Your task to perform on an android device: show emergency info Image 0: 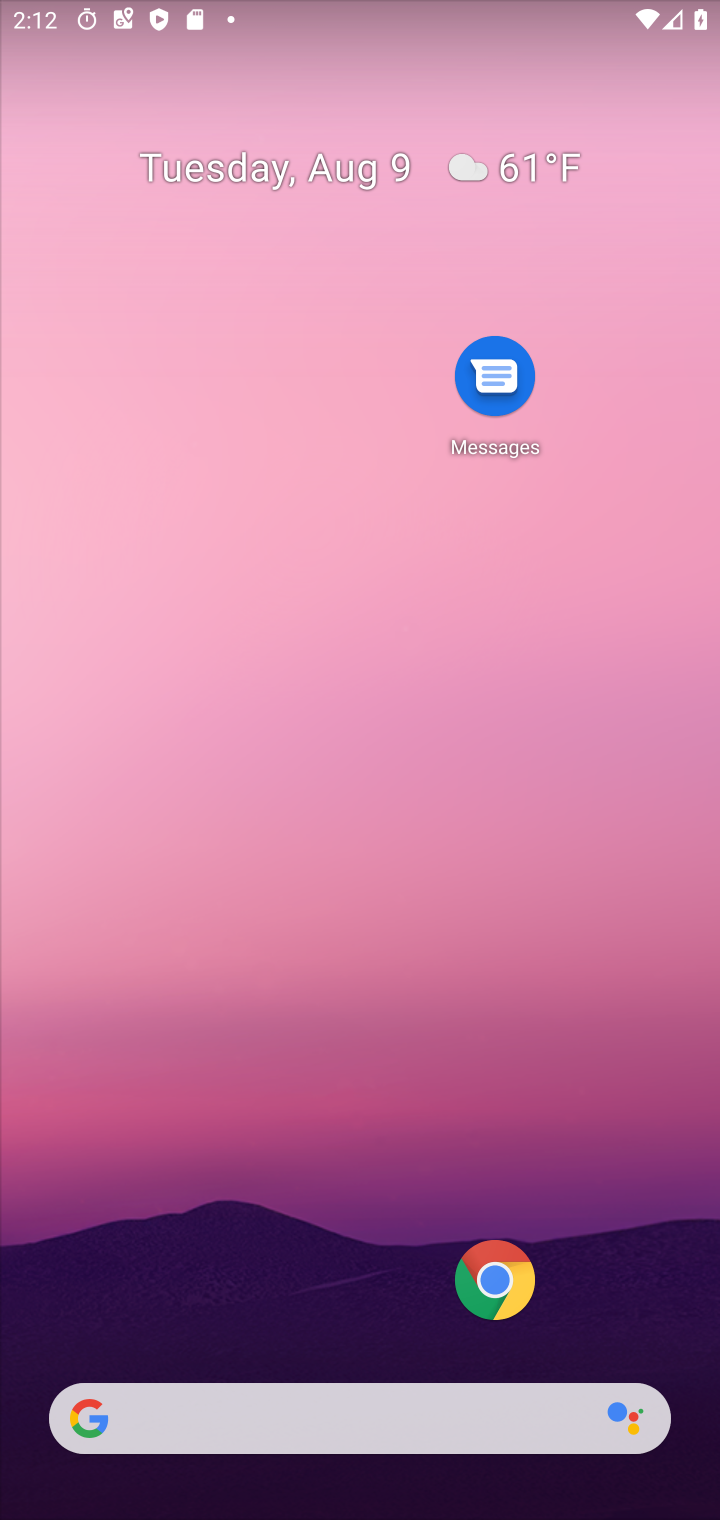
Step 0: press home button
Your task to perform on an android device: show emergency info Image 1: 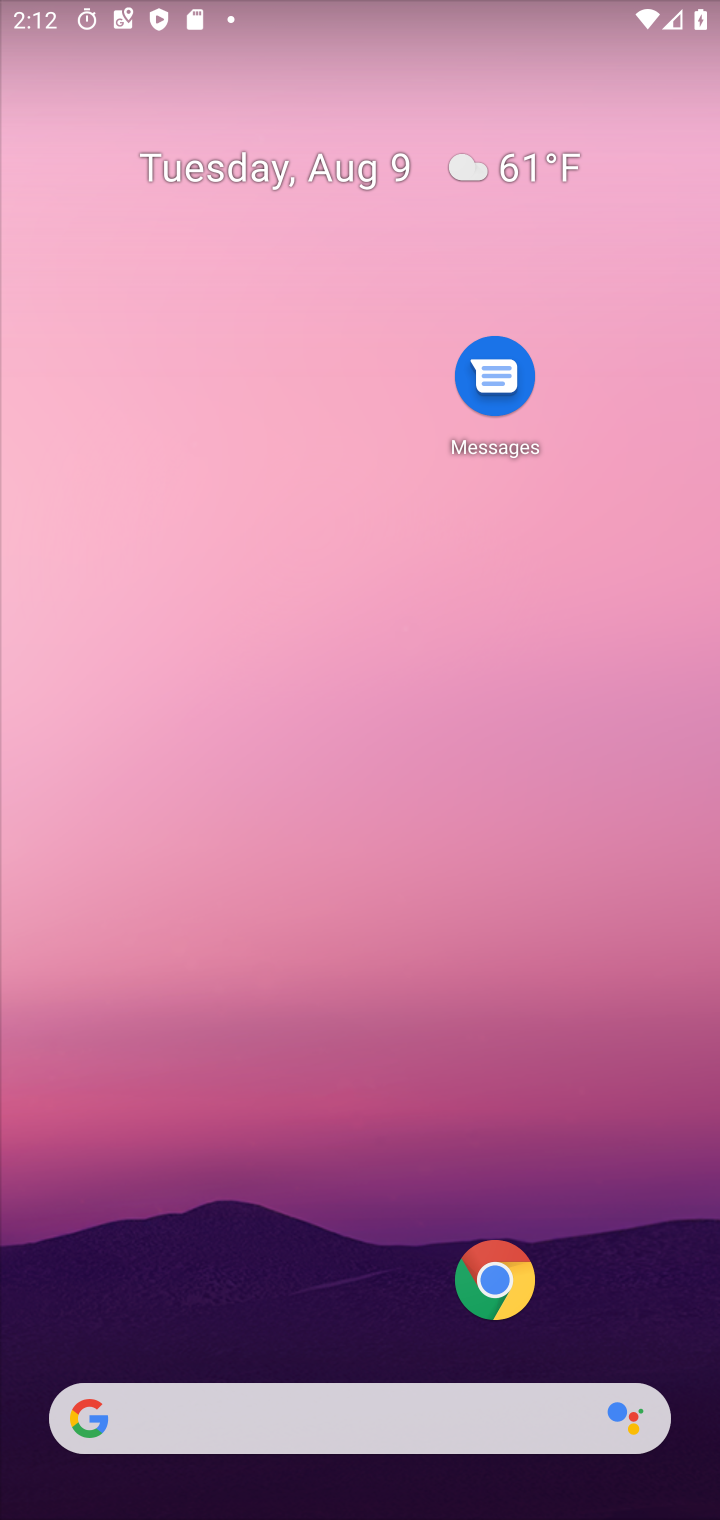
Step 1: drag from (365, 1333) to (435, 223)
Your task to perform on an android device: show emergency info Image 2: 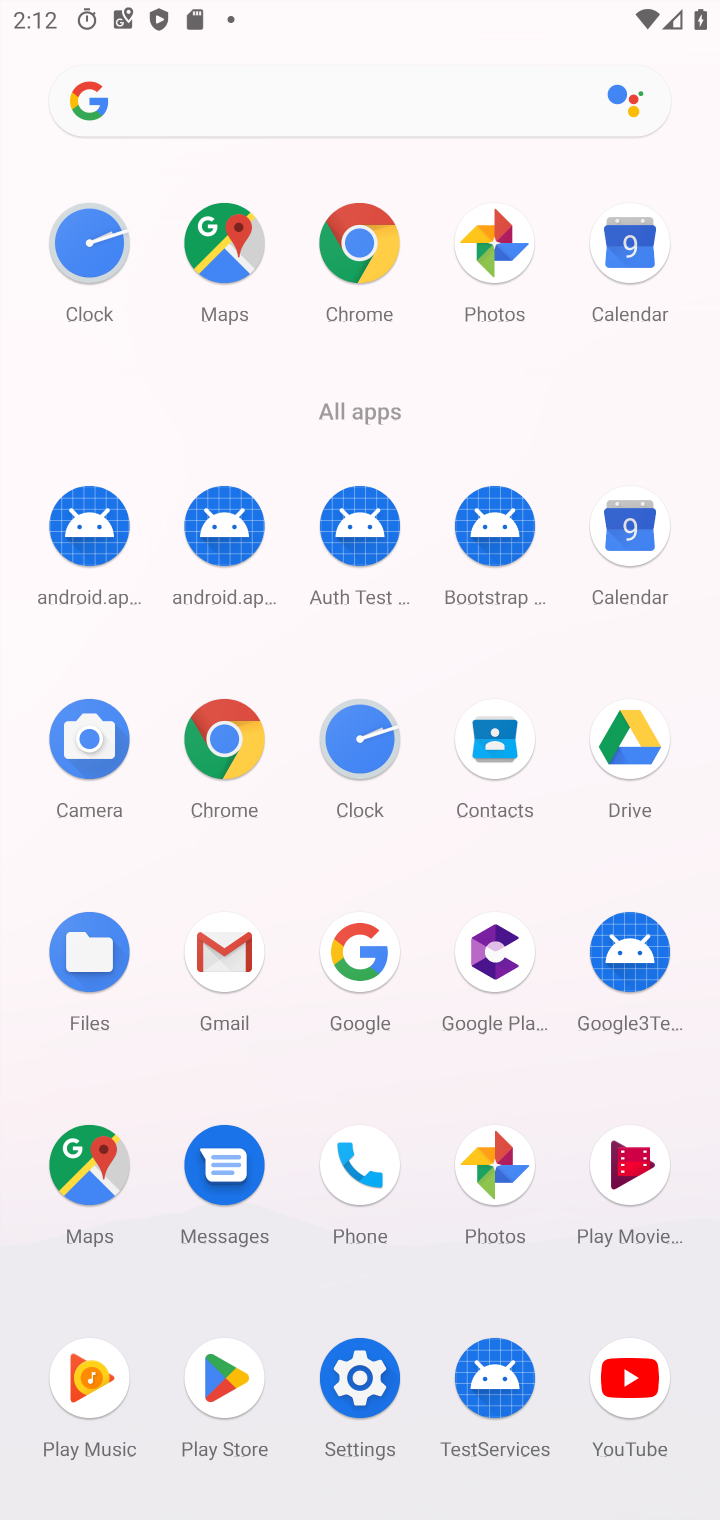
Step 2: click (363, 1376)
Your task to perform on an android device: show emergency info Image 3: 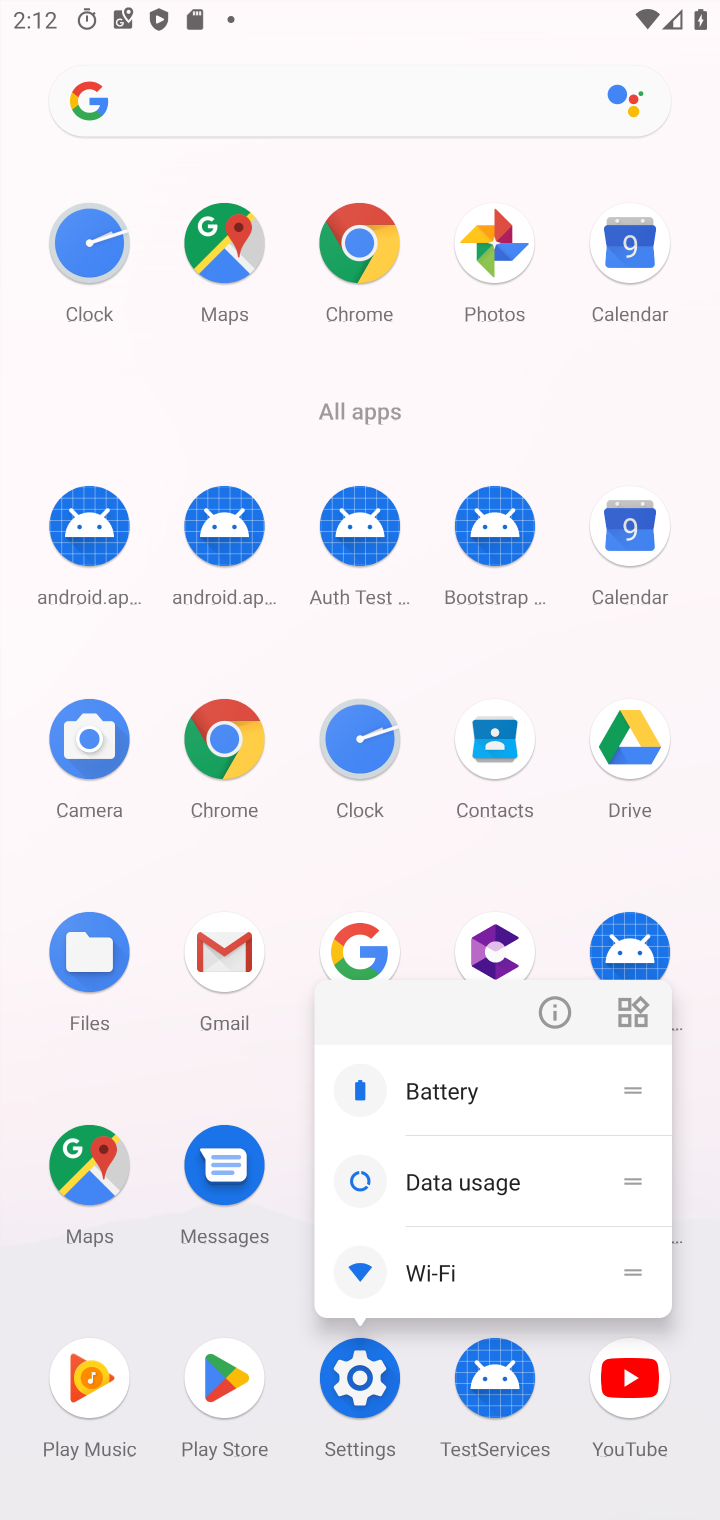
Step 3: click (365, 1374)
Your task to perform on an android device: show emergency info Image 4: 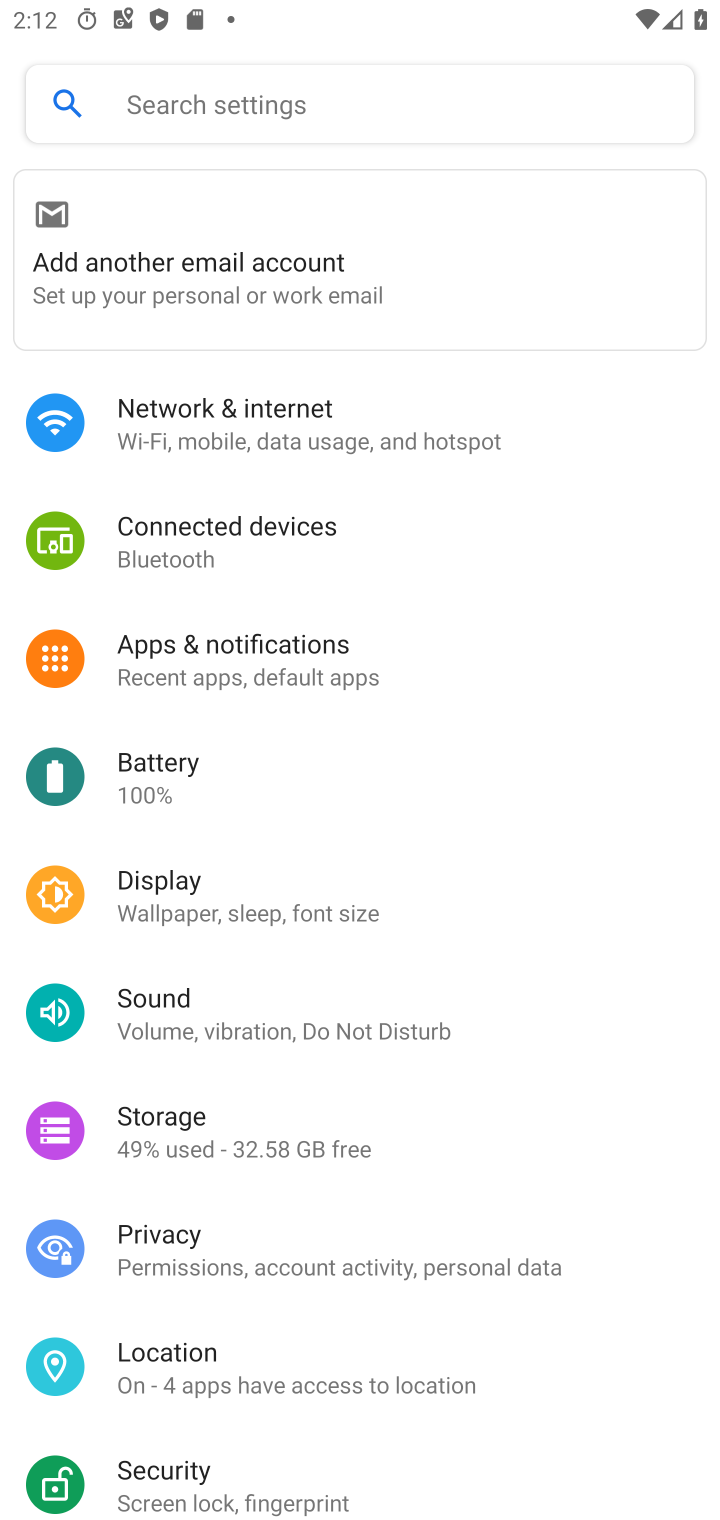
Step 4: drag from (321, 1376) to (528, 177)
Your task to perform on an android device: show emergency info Image 5: 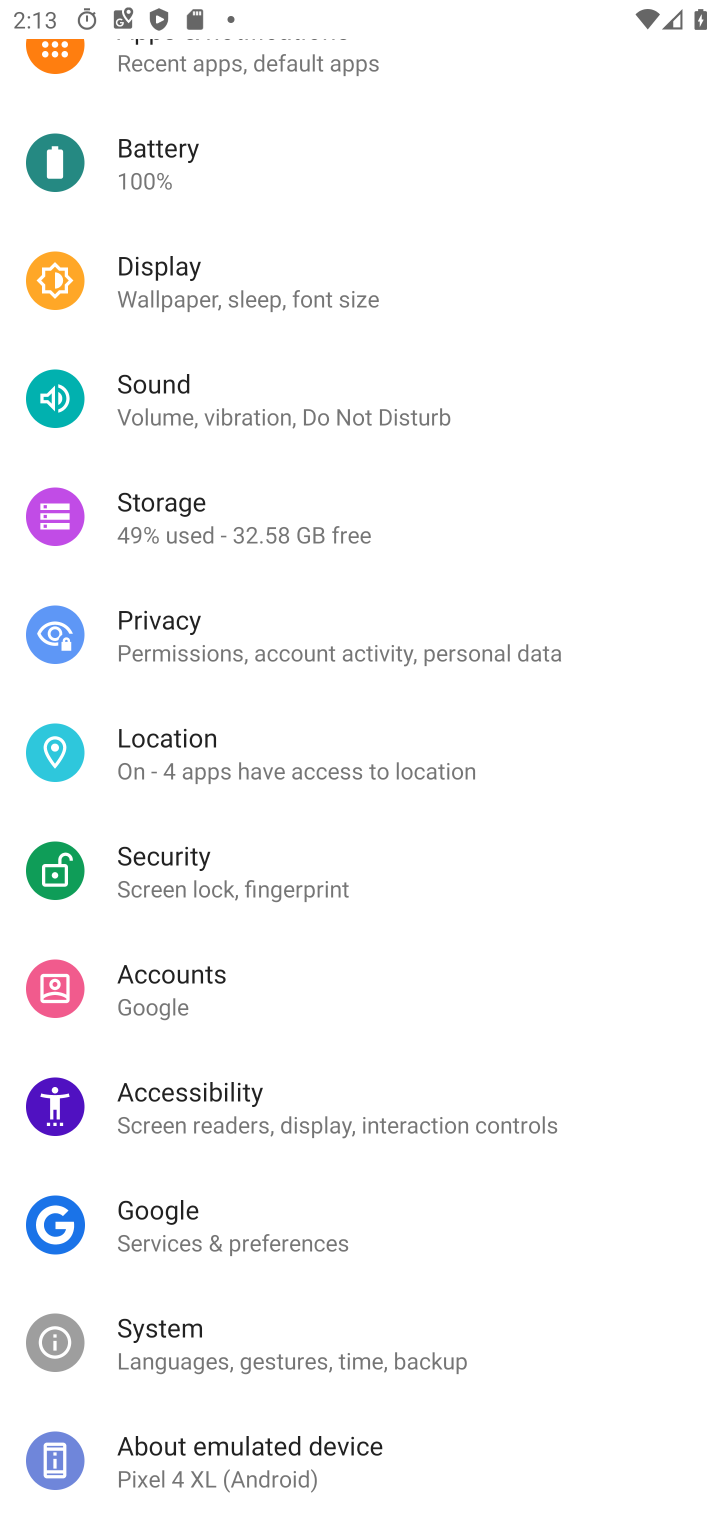
Step 5: click (211, 1454)
Your task to perform on an android device: show emergency info Image 6: 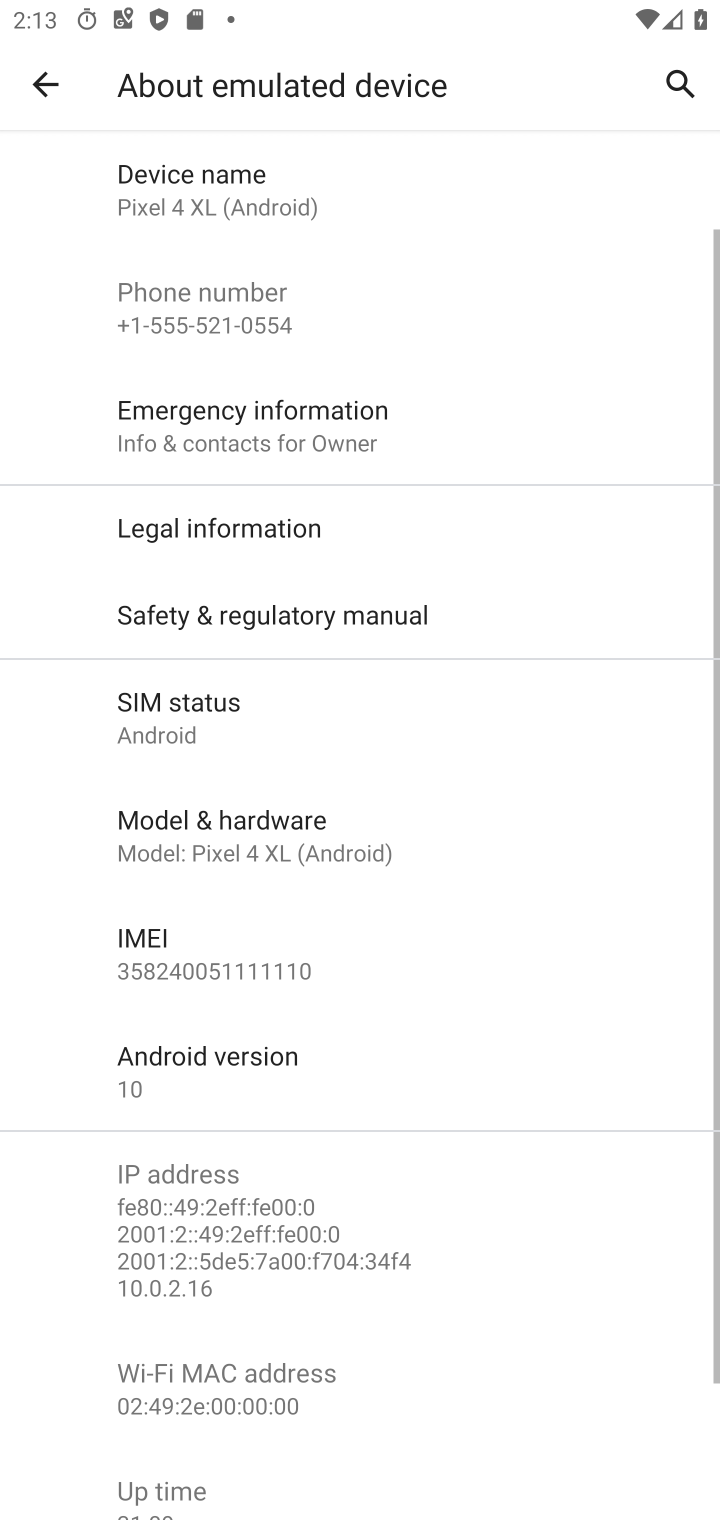
Step 6: click (311, 414)
Your task to perform on an android device: show emergency info Image 7: 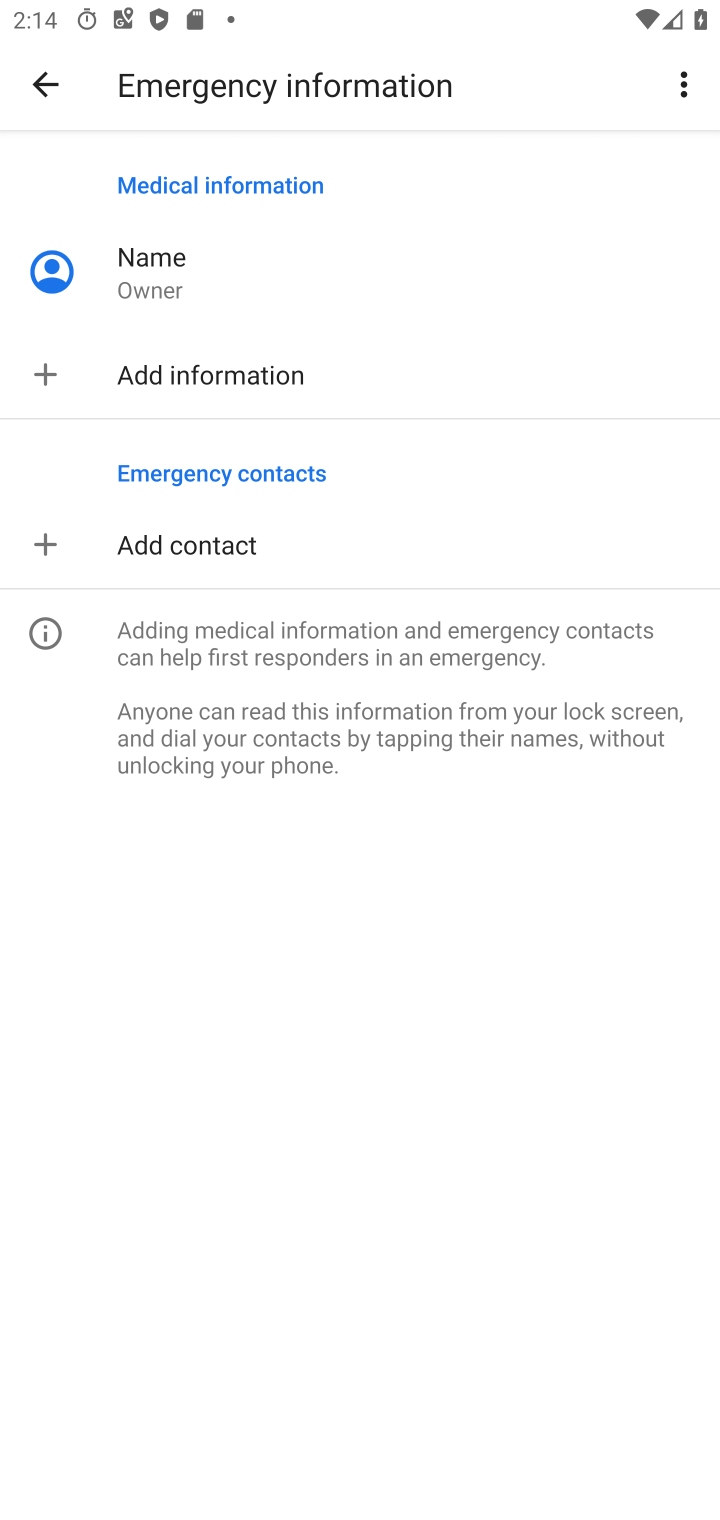
Step 7: task complete